Your task to perform on an android device: Open Yahoo.com Image 0: 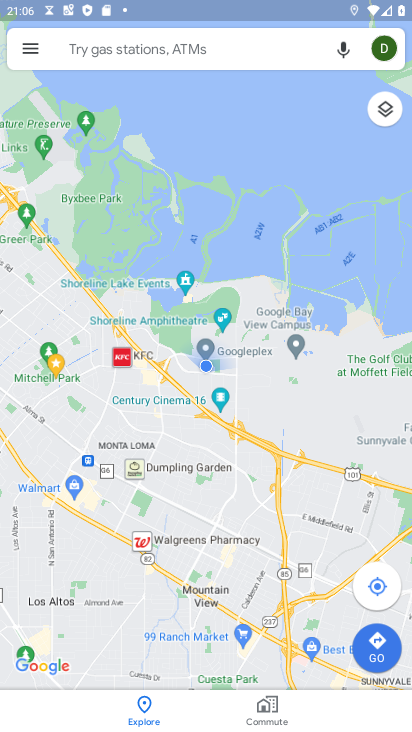
Step 0: press home button
Your task to perform on an android device: Open Yahoo.com Image 1: 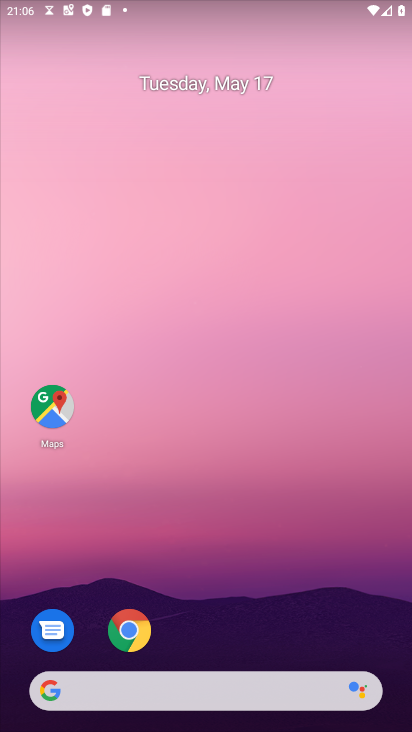
Step 1: click (135, 630)
Your task to perform on an android device: Open Yahoo.com Image 2: 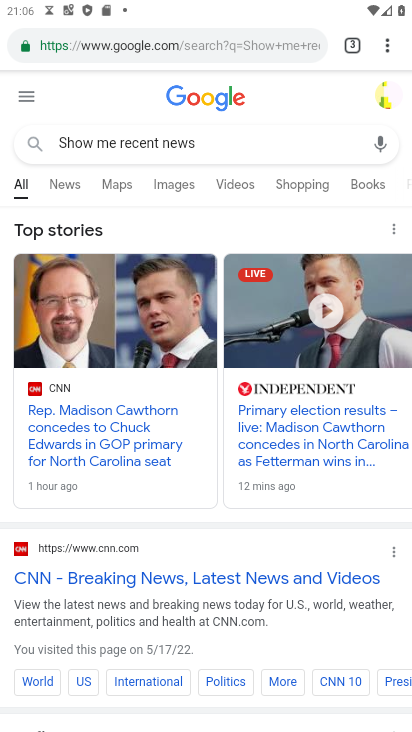
Step 2: click (358, 41)
Your task to perform on an android device: Open Yahoo.com Image 3: 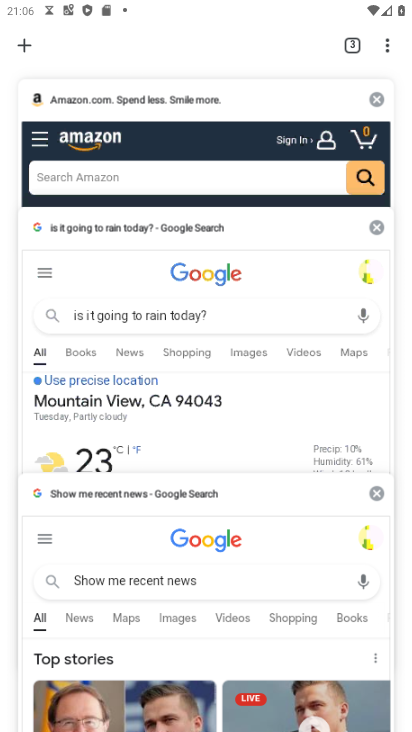
Step 3: click (25, 48)
Your task to perform on an android device: Open Yahoo.com Image 4: 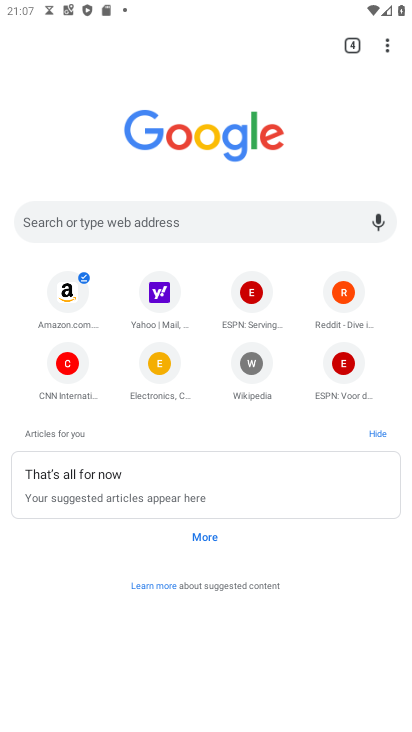
Step 4: click (168, 301)
Your task to perform on an android device: Open Yahoo.com Image 5: 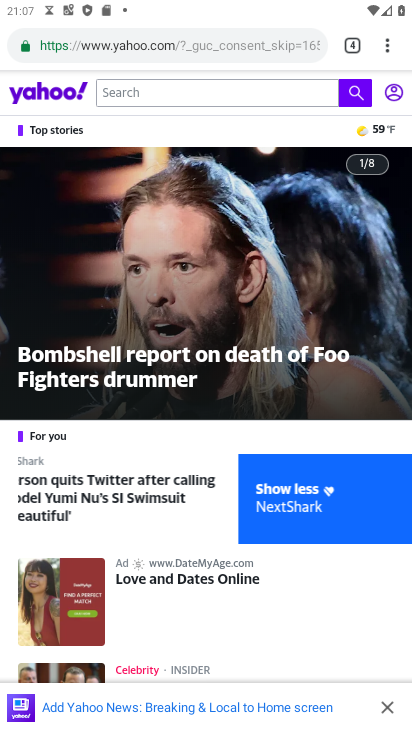
Step 5: task complete